Your task to perform on an android device: change the clock display to analog Image 0: 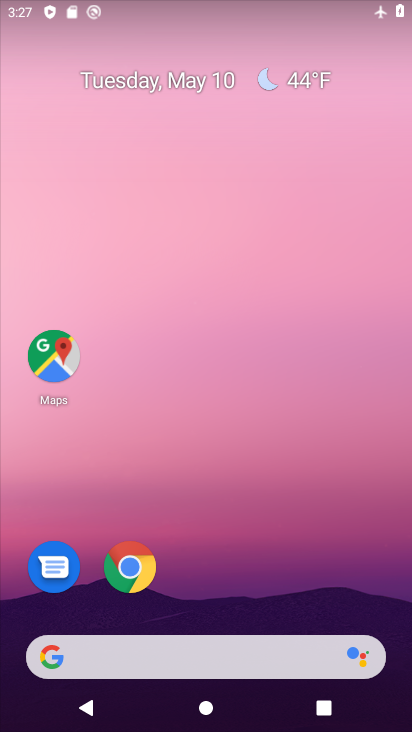
Step 0: drag from (241, 587) to (266, 98)
Your task to perform on an android device: change the clock display to analog Image 1: 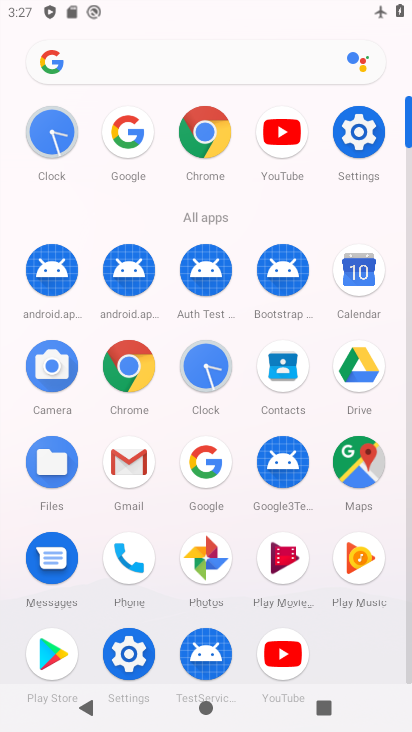
Step 1: click (203, 368)
Your task to perform on an android device: change the clock display to analog Image 2: 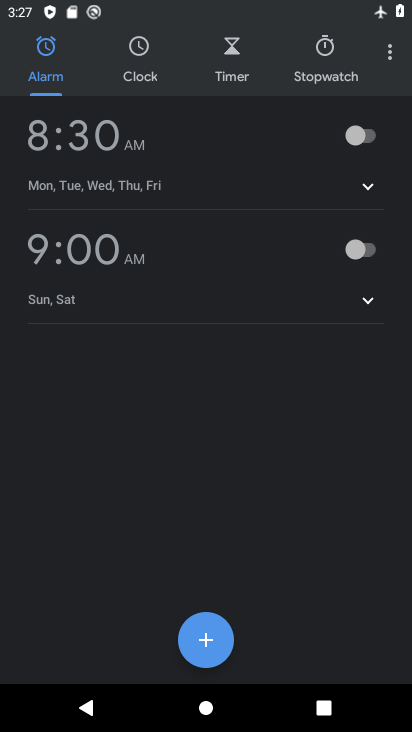
Step 2: click (387, 54)
Your task to perform on an android device: change the clock display to analog Image 3: 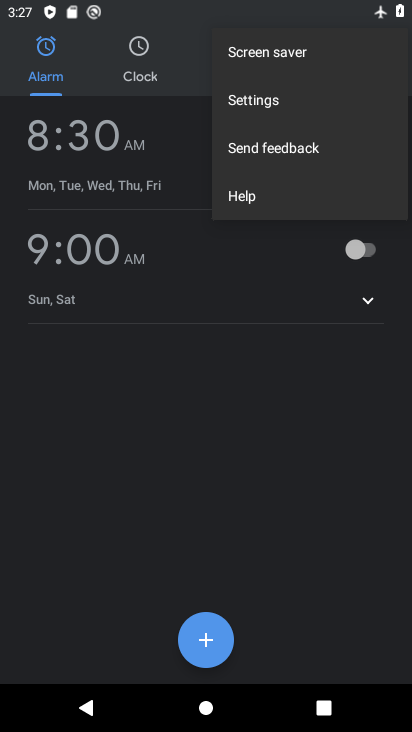
Step 3: click (276, 103)
Your task to perform on an android device: change the clock display to analog Image 4: 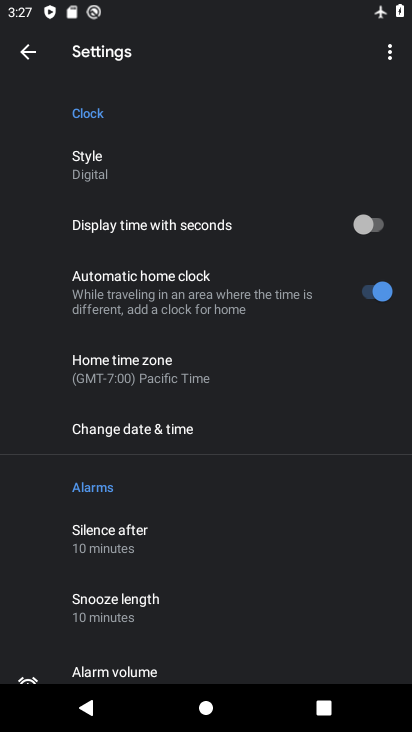
Step 4: click (120, 163)
Your task to perform on an android device: change the clock display to analog Image 5: 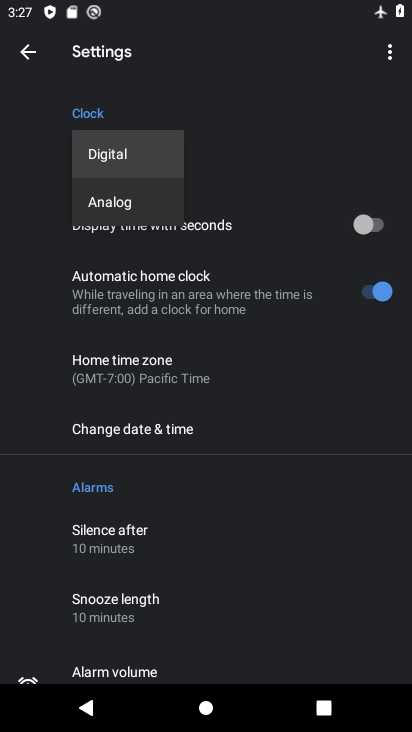
Step 5: click (117, 203)
Your task to perform on an android device: change the clock display to analog Image 6: 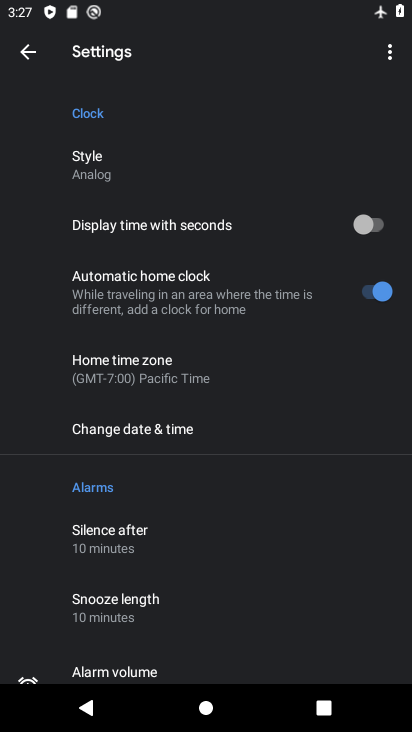
Step 6: task complete